Your task to perform on an android device: Go to battery settings Image 0: 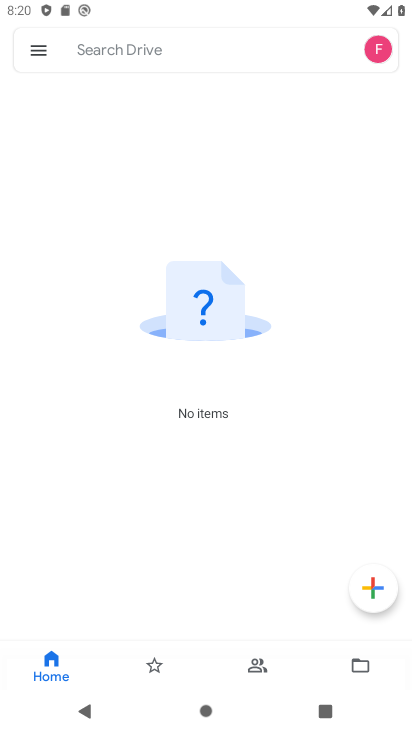
Step 0: press home button
Your task to perform on an android device: Go to battery settings Image 1: 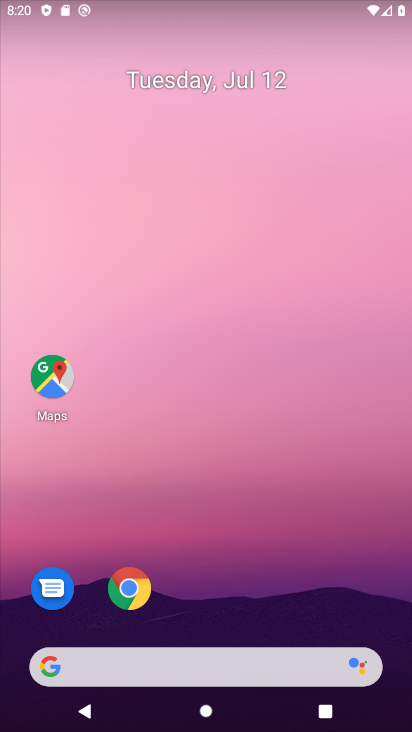
Step 1: drag from (181, 638) to (295, 64)
Your task to perform on an android device: Go to battery settings Image 2: 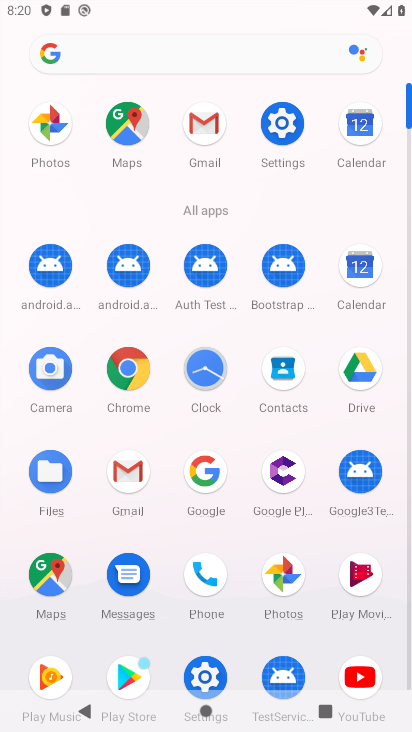
Step 2: click (208, 665)
Your task to perform on an android device: Go to battery settings Image 3: 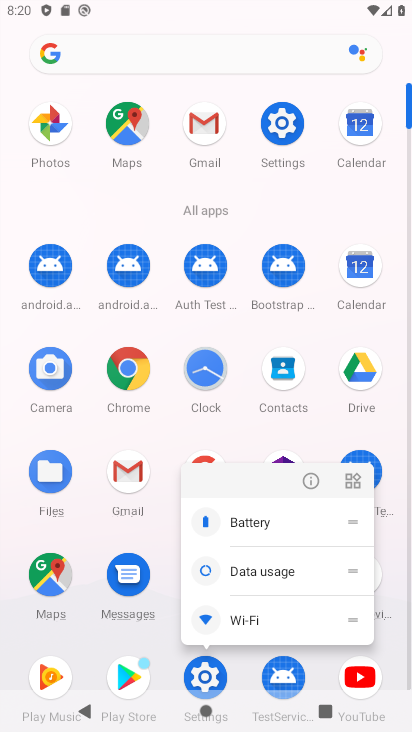
Step 3: click (206, 671)
Your task to perform on an android device: Go to battery settings Image 4: 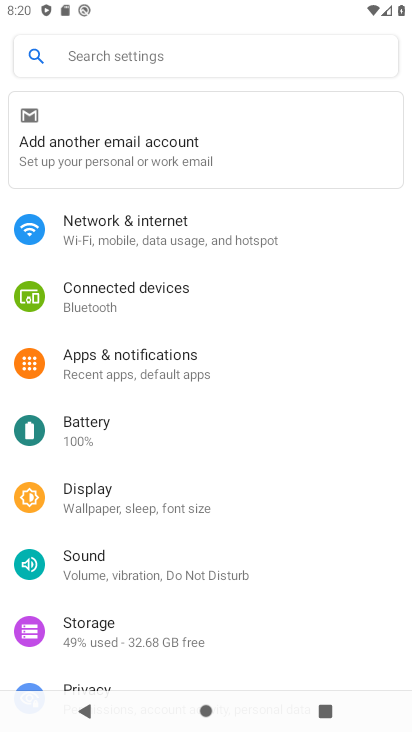
Step 4: click (172, 430)
Your task to perform on an android device: Go to battery settings Image 5: 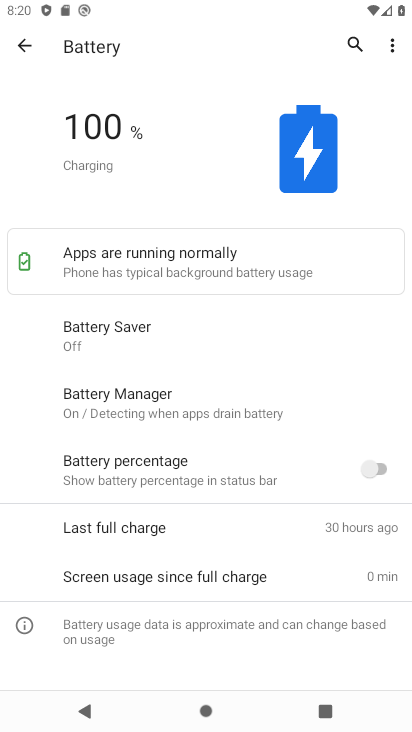
Step 5: task complete